Your task to perform on an android device: Clear the cart on walmart.com. Search for razer blade on walmart.com, select the first entry, and add it to the cart. Image 0: 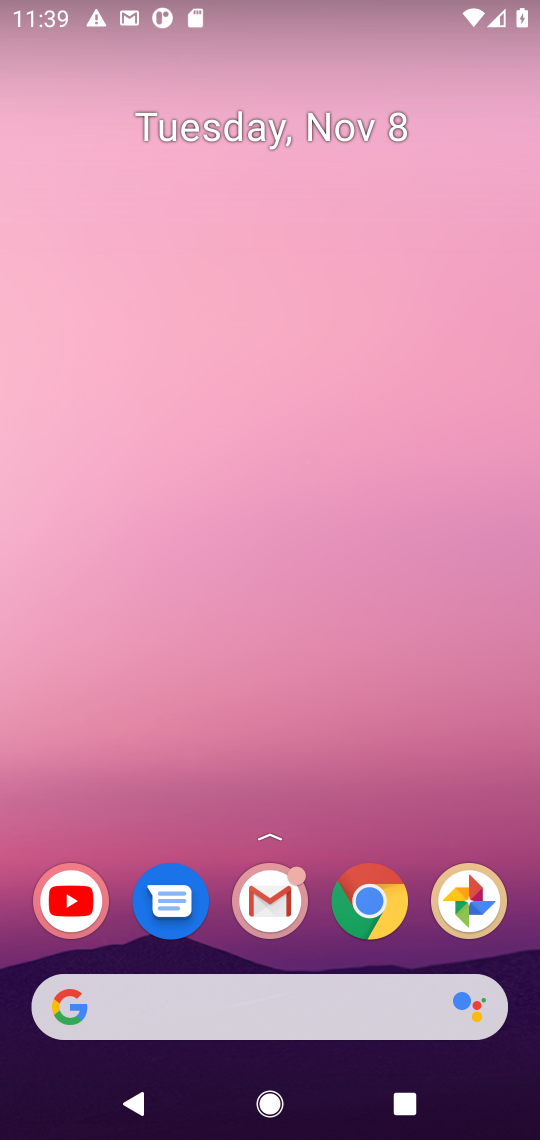
Step 0: click (384, 891)
Your task to perform on an android device: Clear the cart on walmart.com. Search for razer blade on walmart.com, select the first entry, and add it to the cart. Image 1: 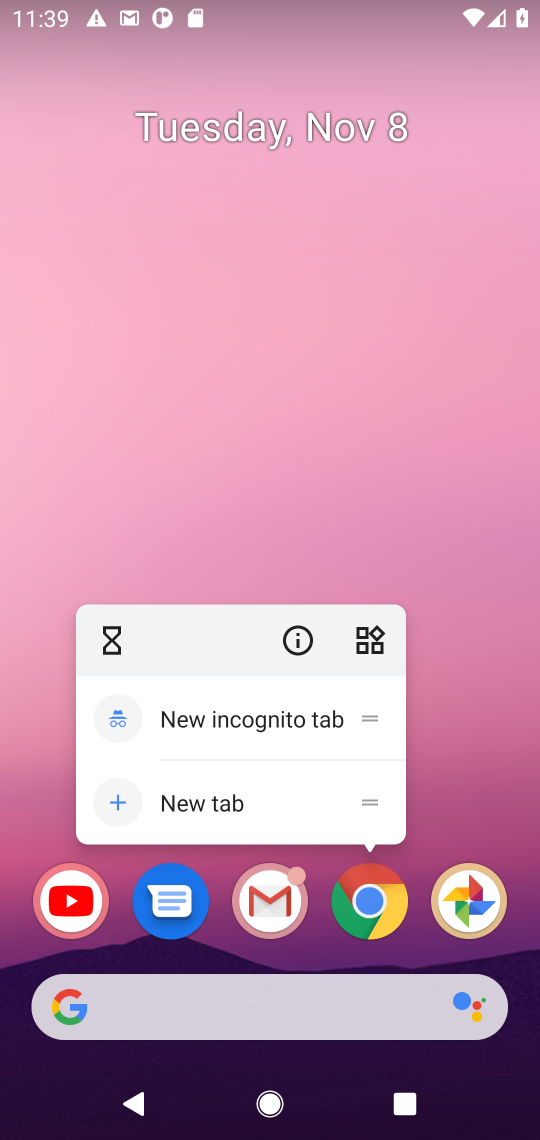
Step 1: click (384, 891)
Your task to perform on an android device: Clear the cart on walmart.com. Search for razer blade on walmart.com, select the first entry, and add it to the cart. Image 2: 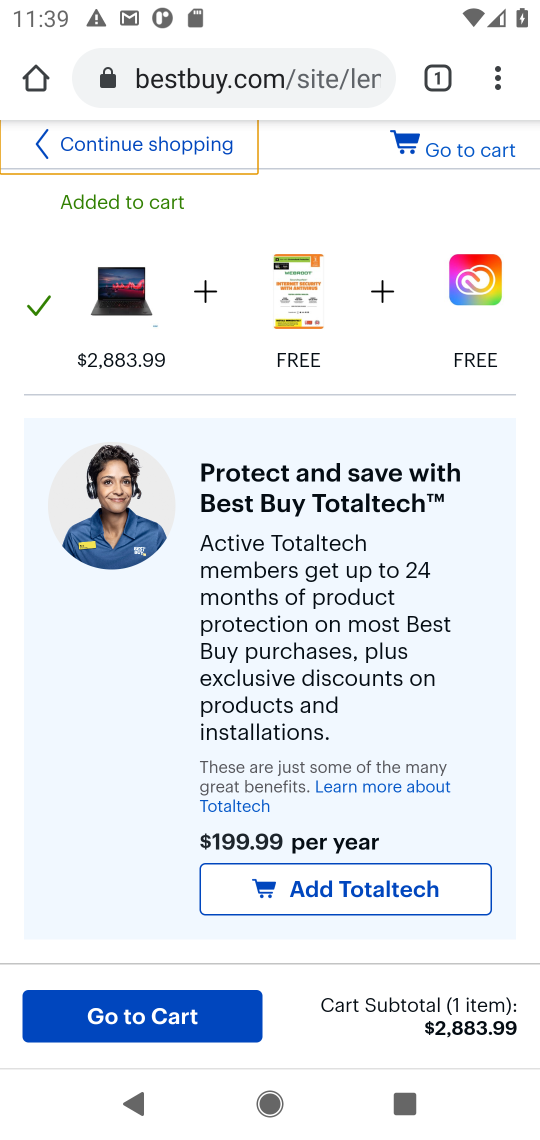
Step 2: click (306, 92)
Your task to perform on an android device: Clear the cart on walmart.com. Search for razer blade on walmart.com, select the first entry, and add it to the cart. Image 3: 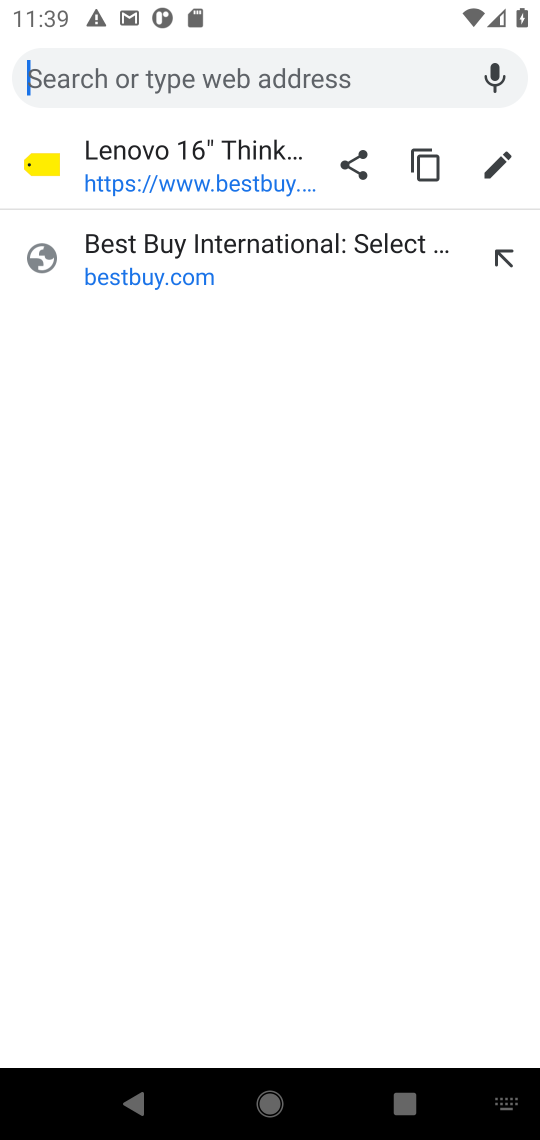
Step 3: type "walmart.com"
Your task to perform on an android device: Clear the cart on walmart.com. Search for razer blade on walmart.com, select the first entry, and add it to the cart. Image 4: 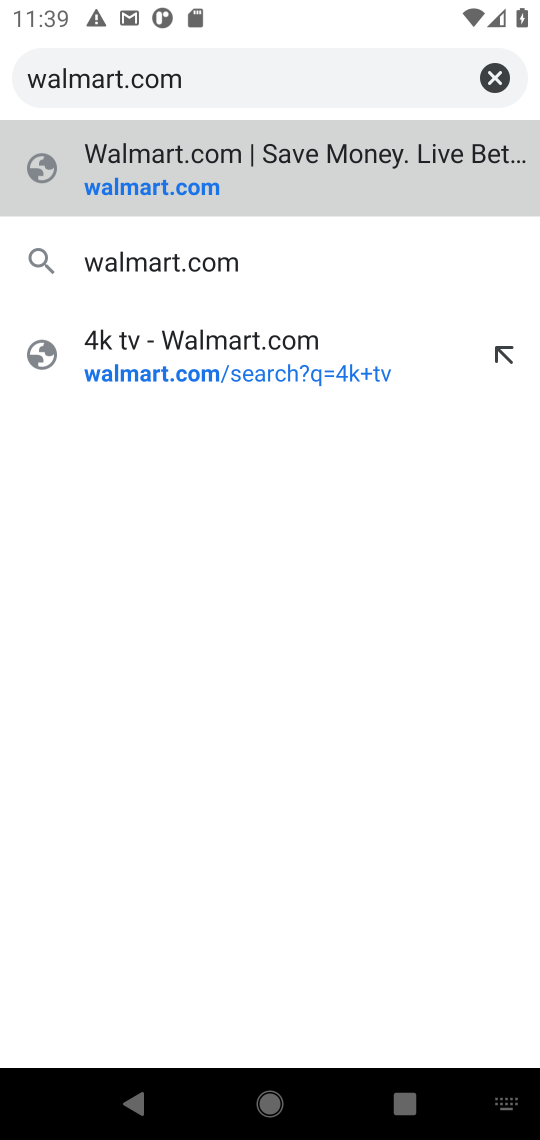
Step 4: click (143, 271)
Your task to perform on an android device: Clear the cart on walmart.com. Search for razer blade on walmart.com, select the first entry, and add it to the cart. Image 5: 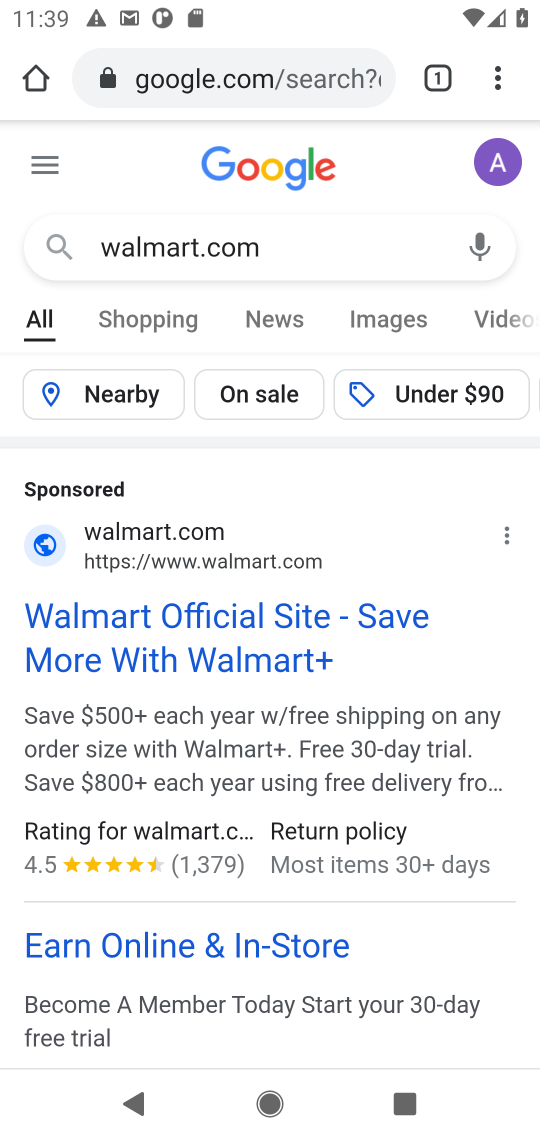
Step 5: click (236, 562)
Your task to perform on an android device: Clear the cart on walmart.com. Search for razer blade on walmart.com, select the first entry, and add it to the cart. Image 6: 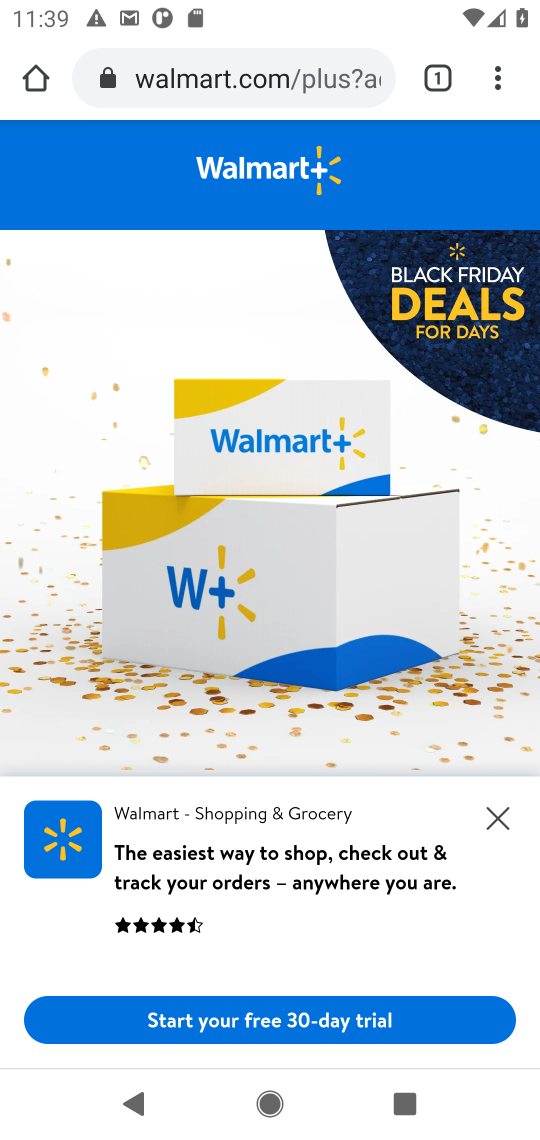
Step 6: press back button
Your task to perform on an android device: Clear the cart on walmart.com. Search for razer blade on walmart.com, select the first entry, and add it to the cart. Image 7: 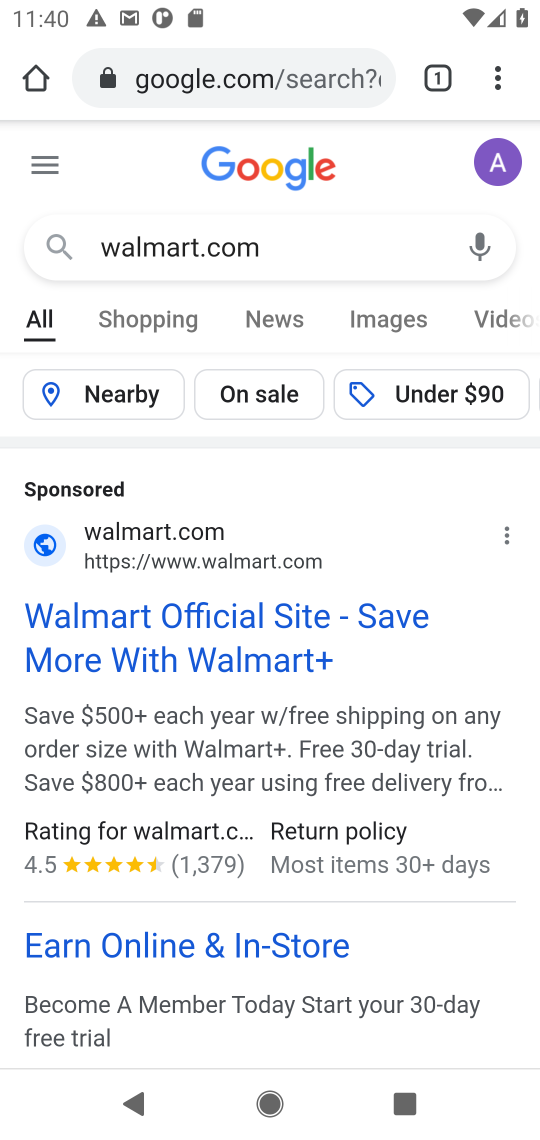
Step 7: drag from (315, 817) to (340, 253)
Your task to perform on an android device: Clear the cart on walmart.com. Search for razer blade on walmart.com, select the first entry, and add it to the cart. Image 8: 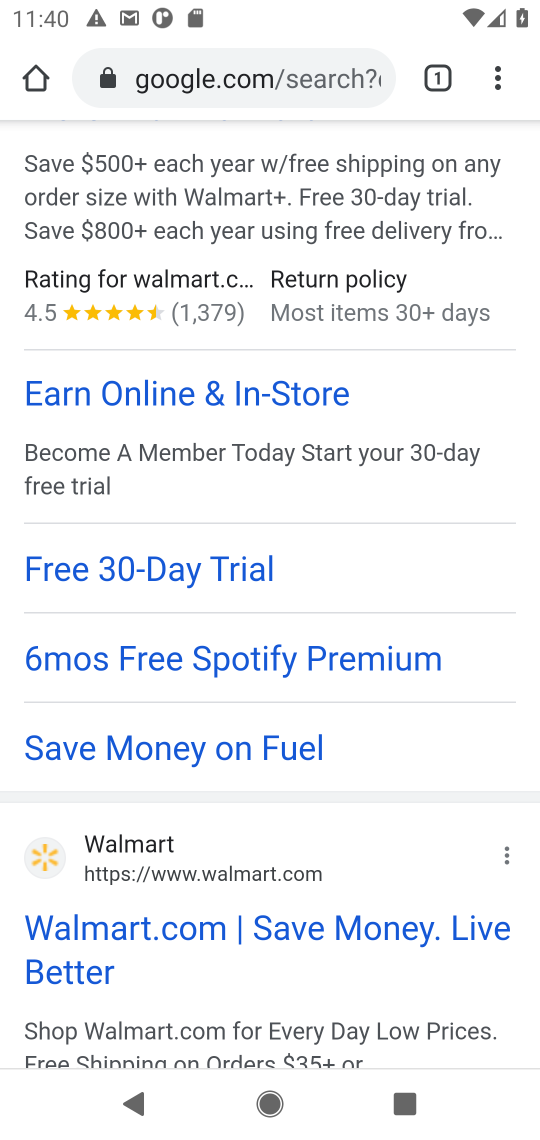
Step 8: click (208, 872)
Your task to perform on an android device: Clear the cart on walmart.com. Search for razer blade on walmart.com, select the first entry, and add it to the cart. Image 9: 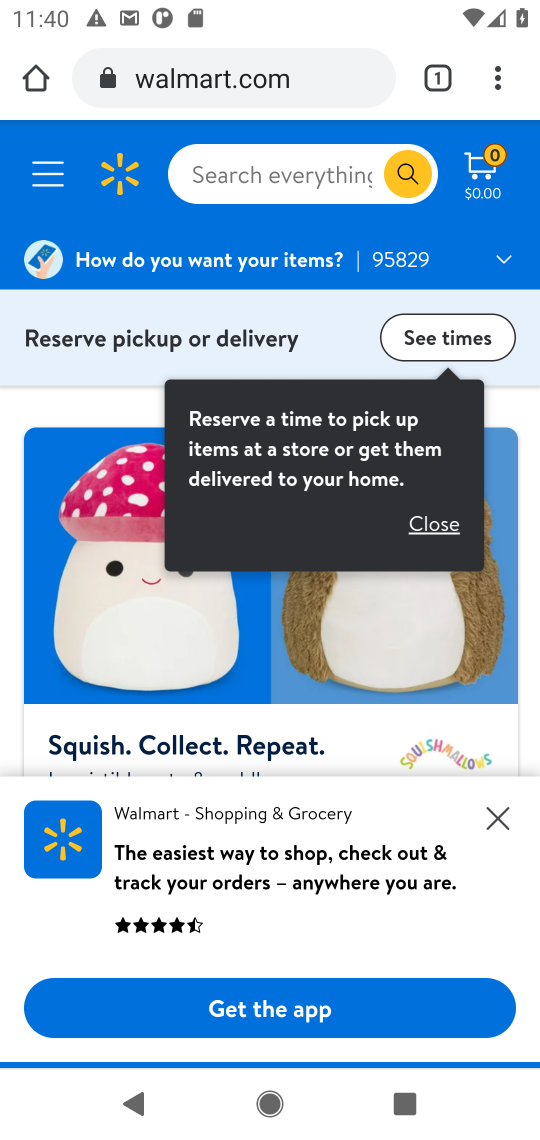
Step 9: click (290, 162)
Your task to perform on an android device: Clear the cart on walmart.com. Search for razer blade on walmart.com, select the first entry, and add it to the cart. Image 10: 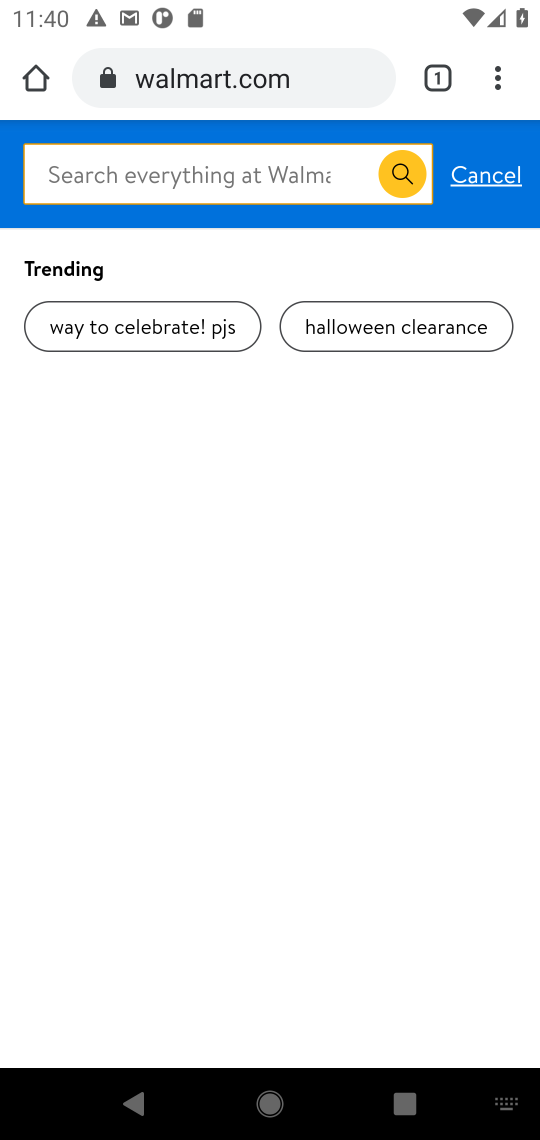
Step 10: type "razer blade"
Your task to perform on an android device: Clear the cart on walmart.com. Search for razer blade on walmart.com, select the first entry, and add it to the cart. Image 11: 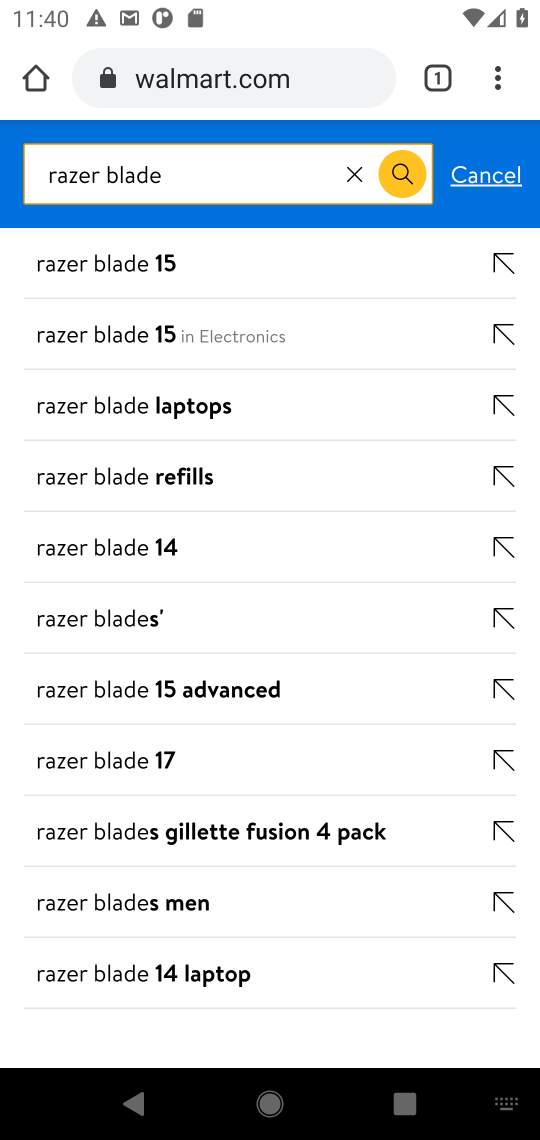
Step 11: click (131, 624)
Your task to perform on an android device: Clear the cart on walmart.com. Search for razer blade on walmart.com, select the first entry, and add it to the cart. Image 12: 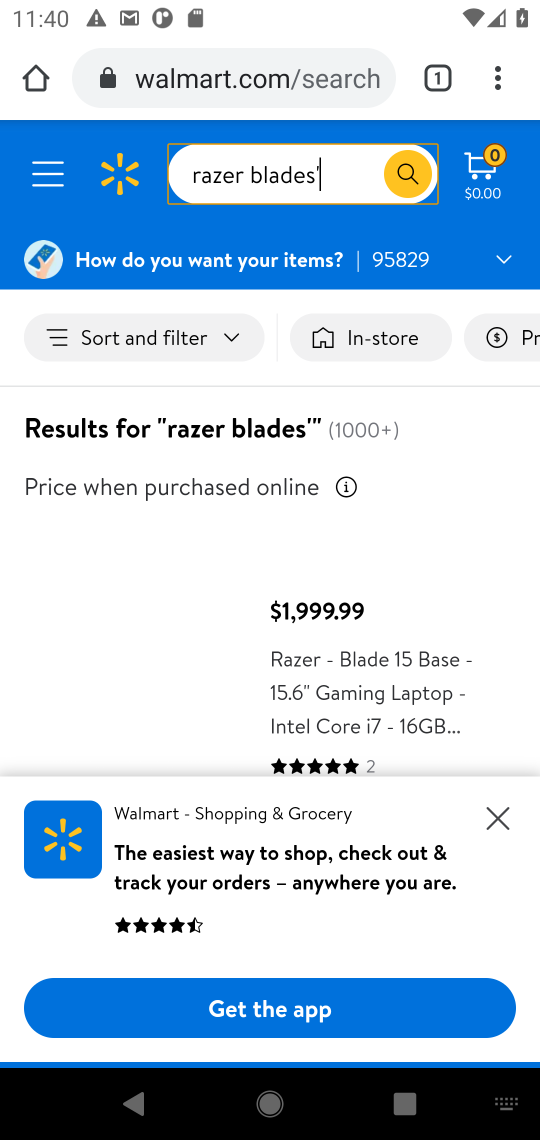
Step 12: click (505, 822)
Your task to perform on an android device: Clear the cart on walmart.com. Search for razer blade on walmart.com, select the first entry, and add it to the cart. Image 13: 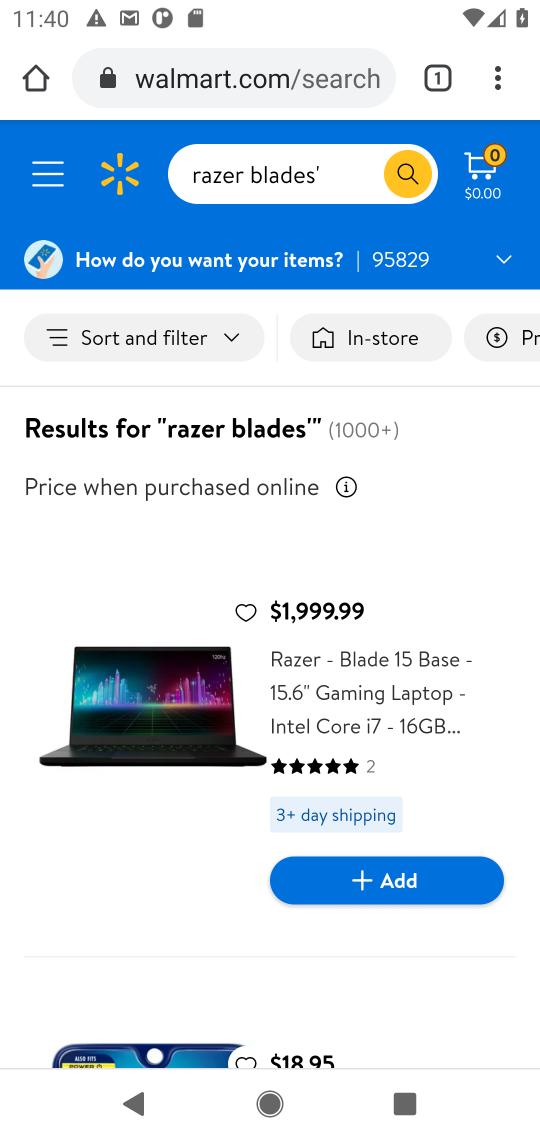
Step 13: click (115, 720)
Your task to perform on an android device: Clear the cart on walmart.com. Search for razer blade on walmart.com, select the first entry, and add it to the cart. Image 14: 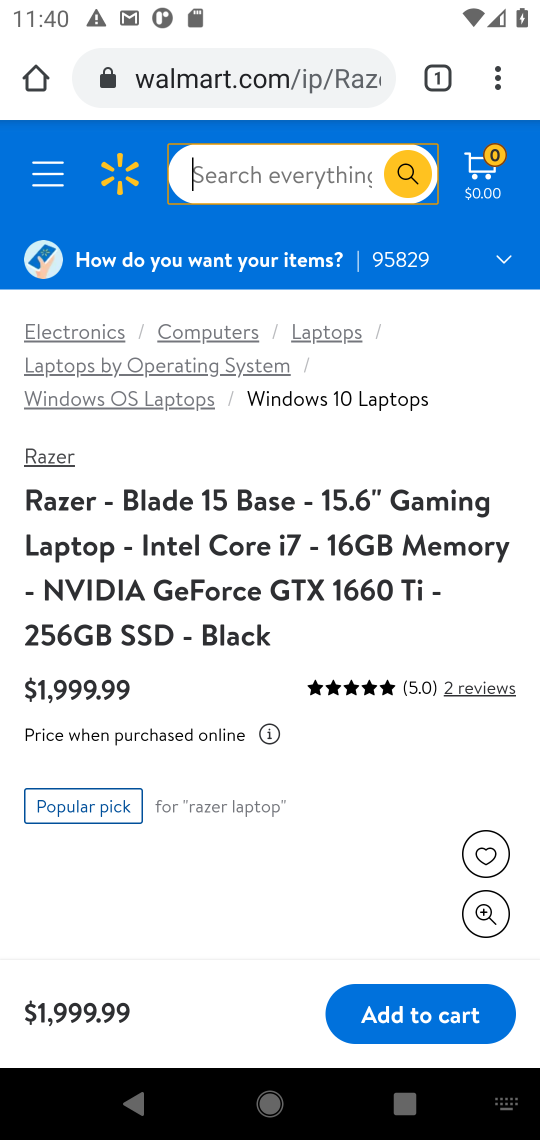
Step 14: drag from (383, 848) to (374, 385)
Your task to perform on an android device: Clear the cart on walmart.com. Search for razer blade on walmart.com, select the first entry, and add it to the cart. Image 15: 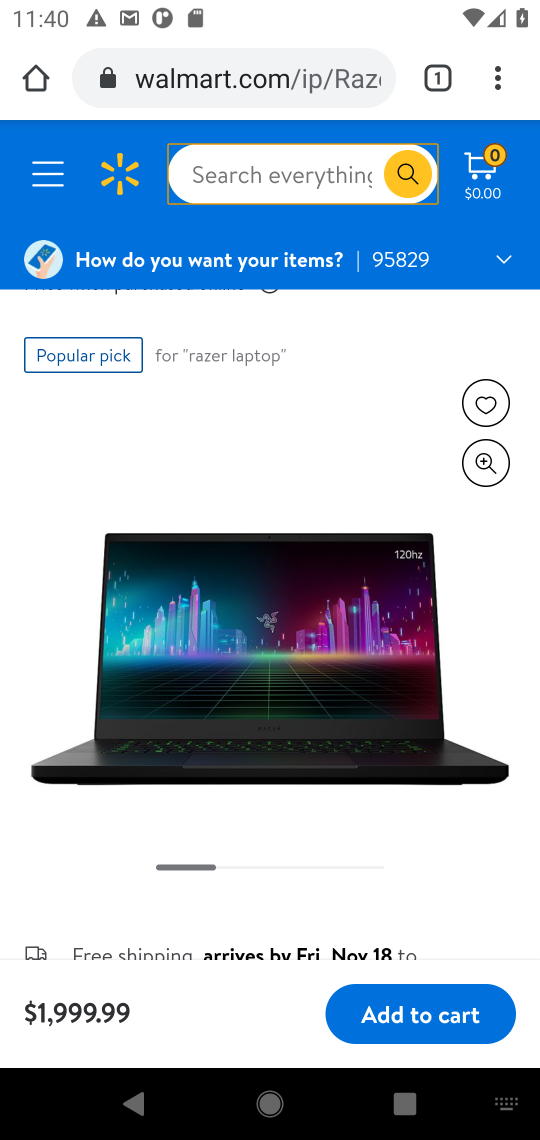
Step 15: click (431, 1017)
Your task to perform on an android device: Clear the cart on walmart.com. Search for razer blade on walmart.com, select the first entry, and add it to the cart. Image 16: 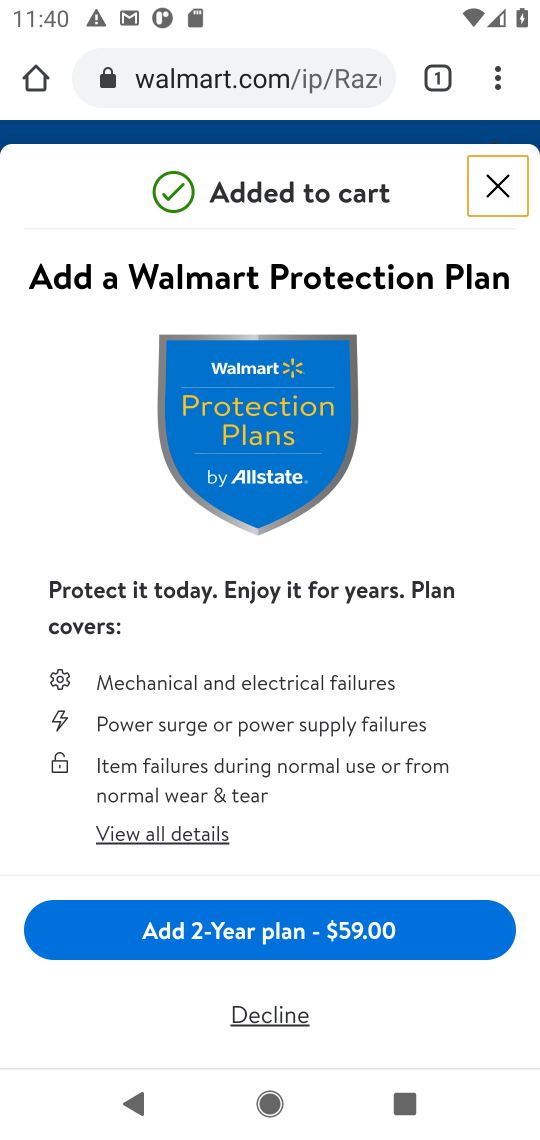
Step 16: task complete